Your task to perform on an android device: Go to CNN.com Image 0: 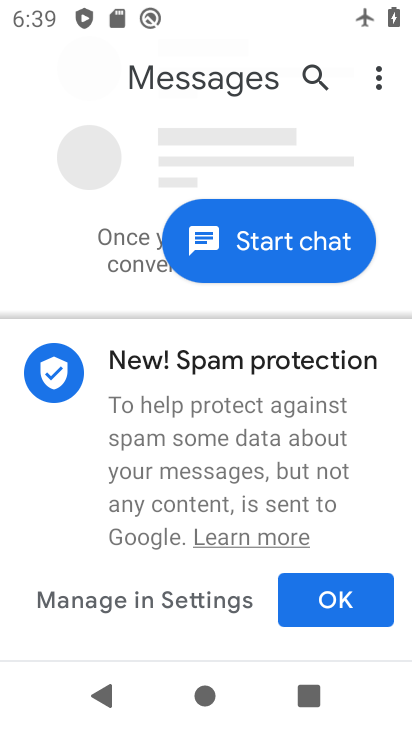
Step 0: press home button
Your task to perform on an android device: Go to CNN.com Image 1: 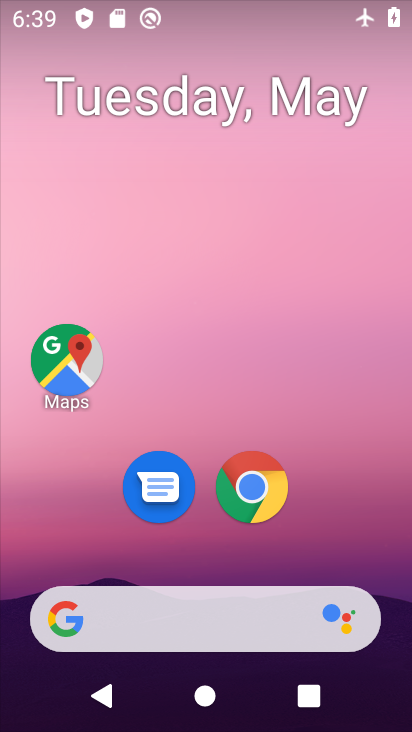
Step 1: click (175, 621)
Your task to perform on an android device: Go to CNN.com Image 2: 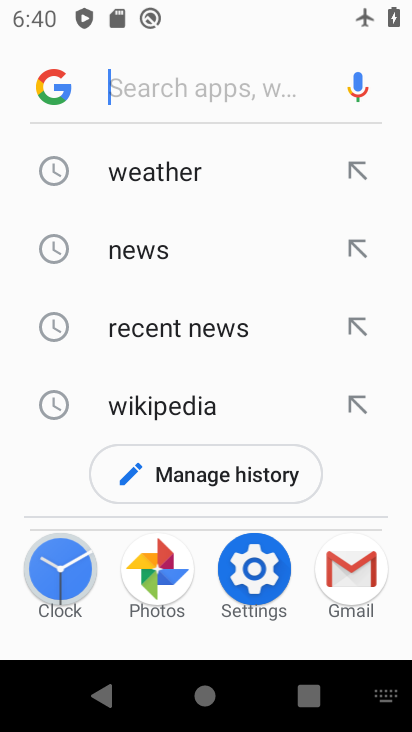
Step 2: click (140, 240)
Your task to perform on an android device: Go to CNN.com Image 3: 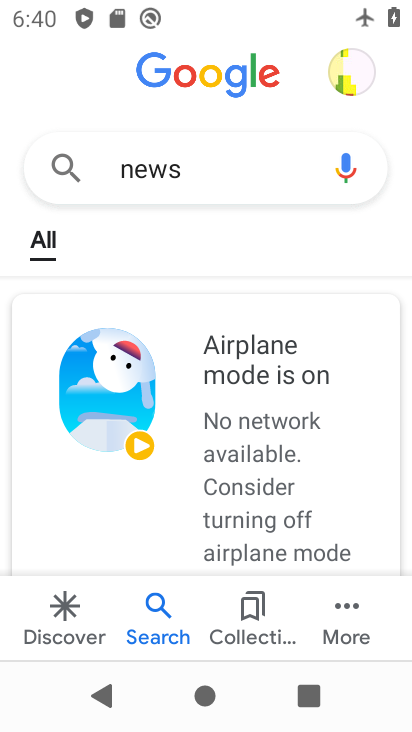
Step 3: task complete